Your task to perform on an android device: Show the shopping cart on costco.com. Search for razer deathadder on costco.com, select the first entry, and add it to the cart. Image 0: 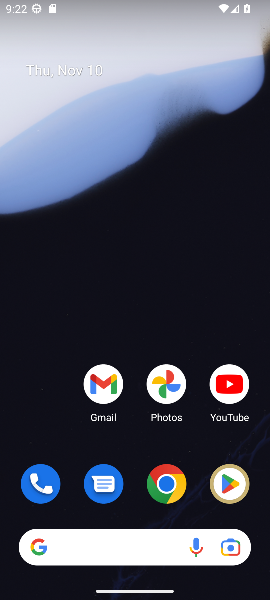
Step 0: click (167, 487)
Your task to perform on an android device: Show the shopping cart on costco.com. Search for razer deathadder on costco.com, select the first entry, and add it to the cart. Image 1: 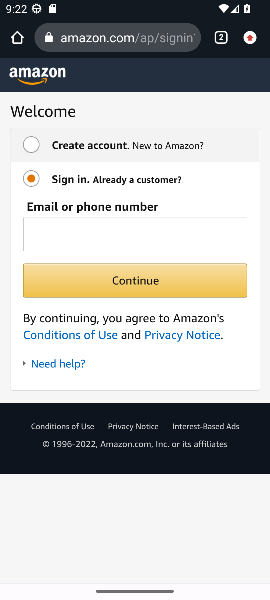
Step 1: click (100, 50)
Your task to perform on an android device: Show the shopping cart on costco.com. Search for razer deathadder on costco.com, select the first entry, and add it to the cart. Image 2: 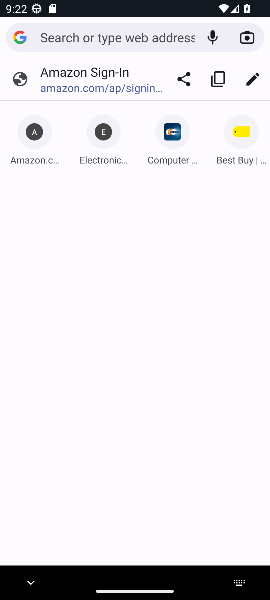
Step 2: type "costco.com"
Your task to perform on an android device: Show the shopping cart on costco.com. Search for razer deathadder on costco.com, select the first entry, and add it to the cart. Image 3: 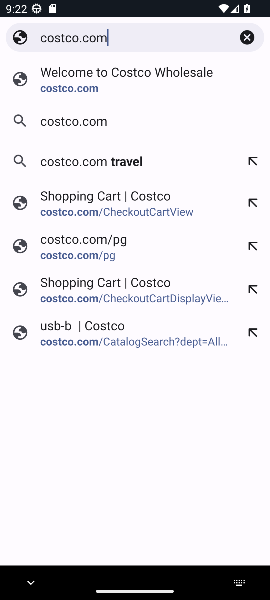
Step 3: click (85, 88)
Your task to perform on an android device: Show the shopping cart on costco.com. Search for razer deathadder on costco.com, select the first entry, and add it to the cart. Image 4: 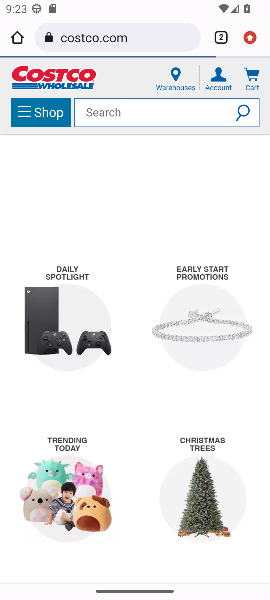
Step 4: click (248, 73)
Your task to perform on an android device: Show the shopping cart on costco.com. Search for razer deathadder on costco.com, select the first entry, and add it to the cart. Image 5: 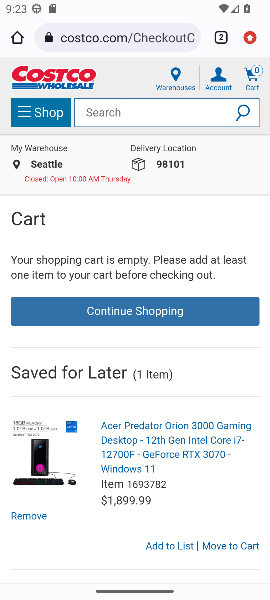
Step 5: click (154, 114)
Your task to perform on an android device: Show the shopping cart on costco.com. Search for razer deathadder on costco.com, select the first entry, and add it to the cart. Image 6: 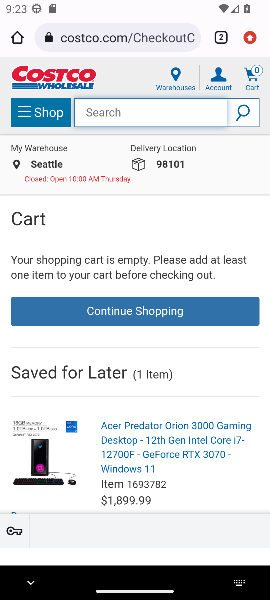
Step 6: type "razer deathadder"
Your task to perform on an android device: Show the shopping cart on costco.com. Search for razer deathadder on costco.com, select the first entry, and add it to the cart. Image 7: 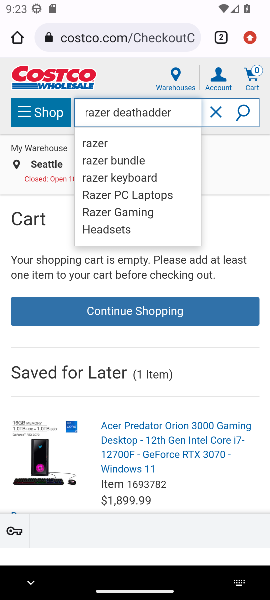
Step 7: click (246, 112)
Your task to perform on an android device: Show the shopping cart on costco.com. Search for razer deathadder on costco.com, select the first entry, and add it to the cart. Image 8: 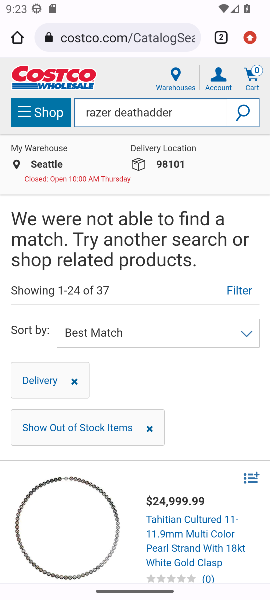
Step 8: task complete